Your task to perform on an android device: Open Youtube and go to "Your channel" Image 0: 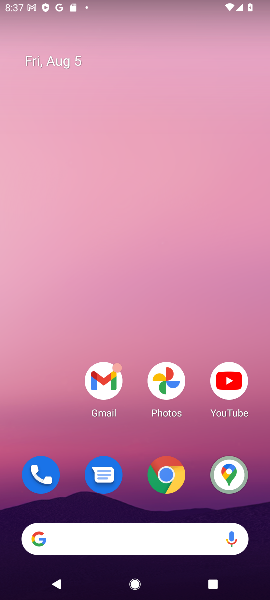
Step 0: click (236, 372)
Your task to perform on an android device: Open Youtube and go to "Your channel" Image 1: 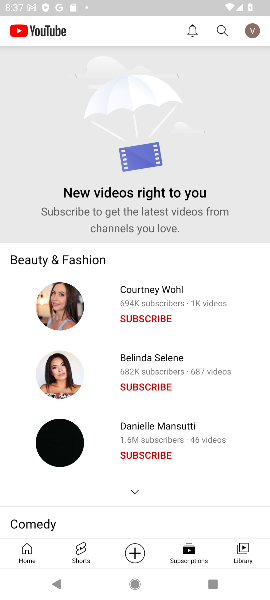
Step 1: click (252, 32)
Your task to perform on an android device: Open Youtube and go to "Your channel" Image 2: 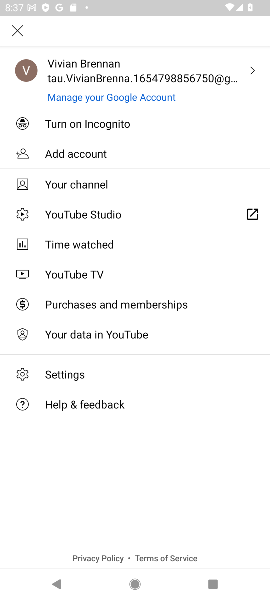
Step 2: click (86, 183)
Your task to perform on an android device: Open Youtube and go to "Your channel" Image 3: 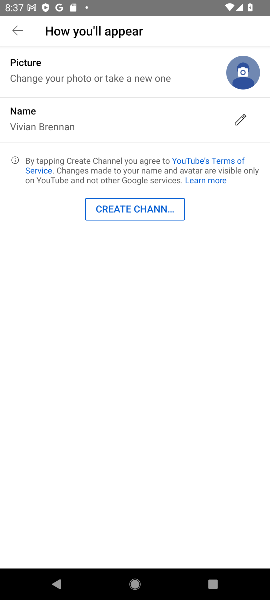
Step 3: task complete